Your task to perform on an android device: Open maps Image 0: 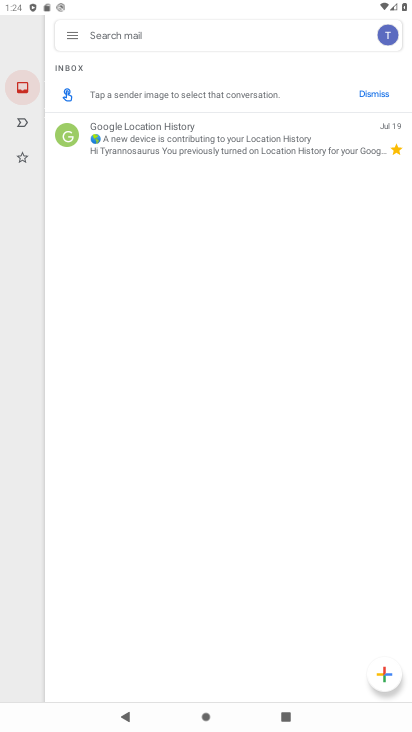
Step 0: press home button
Your task to perform on an android device: Open maps Image 1: 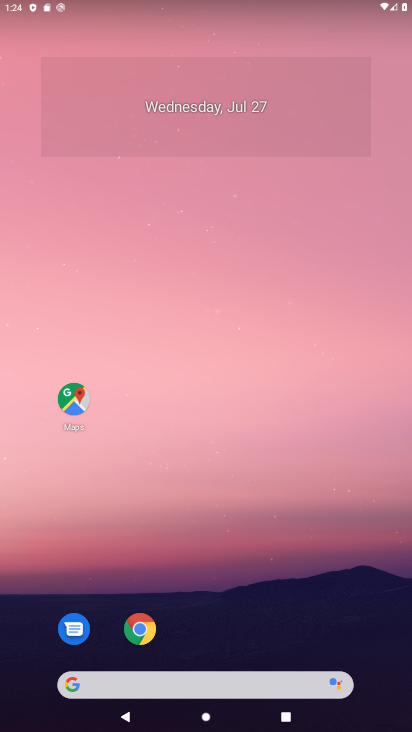
Step 1: drag from (227, 638) to (247, 18)
Your task to perform on an android device: Open maps Image 2: 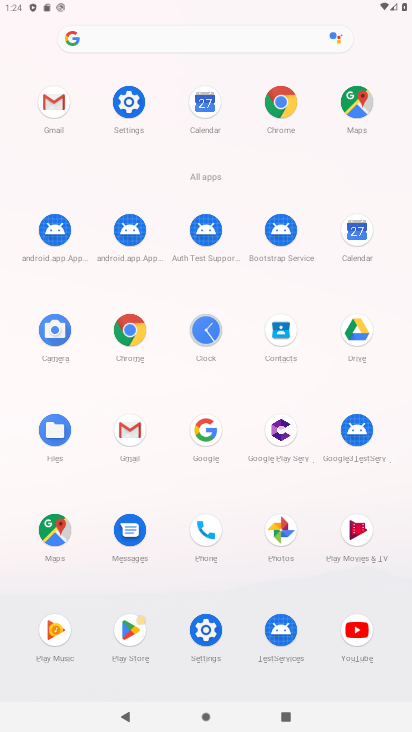
Step 2: click (367, 108)
Your task to perform on an android device: Open maps Image 3: 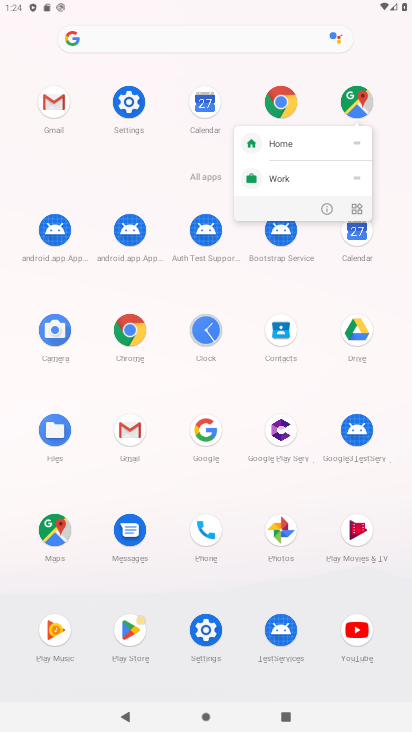
Step 3: click (356, 110)
Your task to perform on an android device: Open maps Image 4: 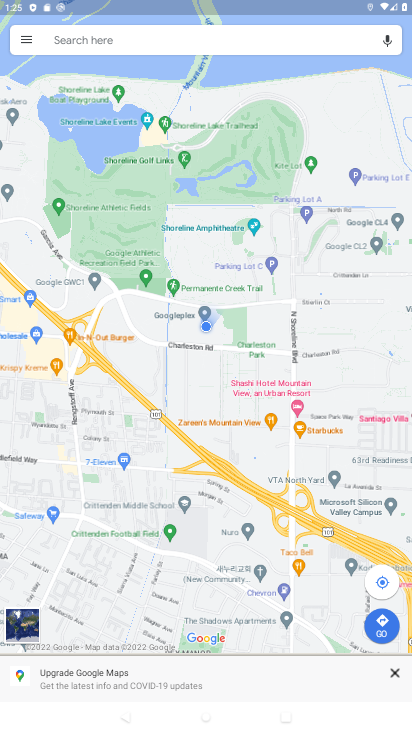
Step 4: task complete